Your task to perform on an android device: toggle pop-ups in chrome Image 0: 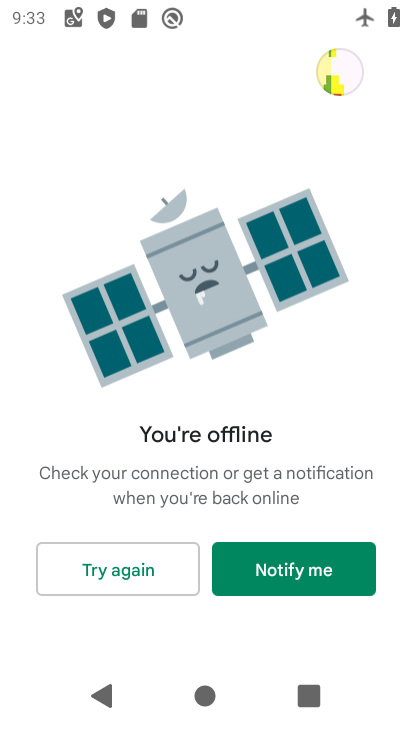
Step 0: press home button
Your task to perform on an android device: toggle pop-ups in chrome Image 1: 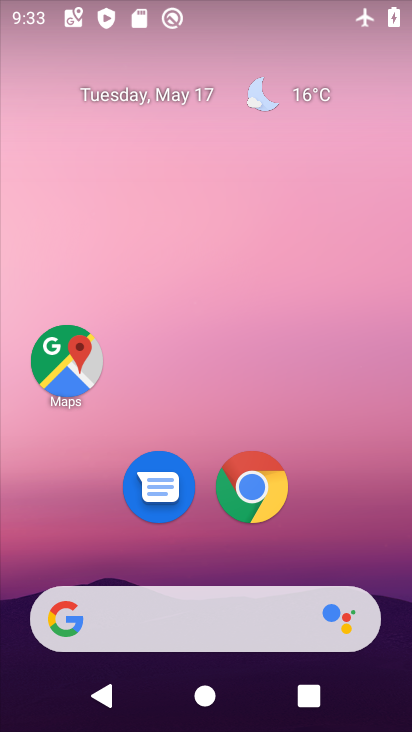
Step 1: click (258, 495)
Your task to perform on an android device: toggle pop-ups in chrome Image 2: 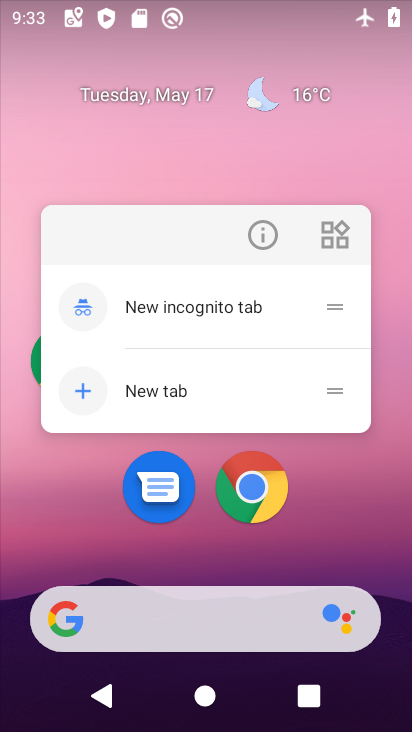
Step 2: click (256, 474)
Your task to perform on an android device: toggle pop-ups in chrome Image 3: 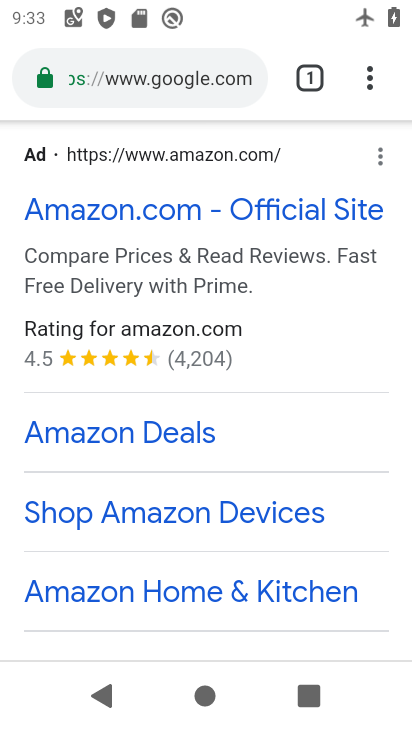
Step 3: click (371, 72)
Your task to perform on an android device: toggle pop-ups in chrome Image 4: 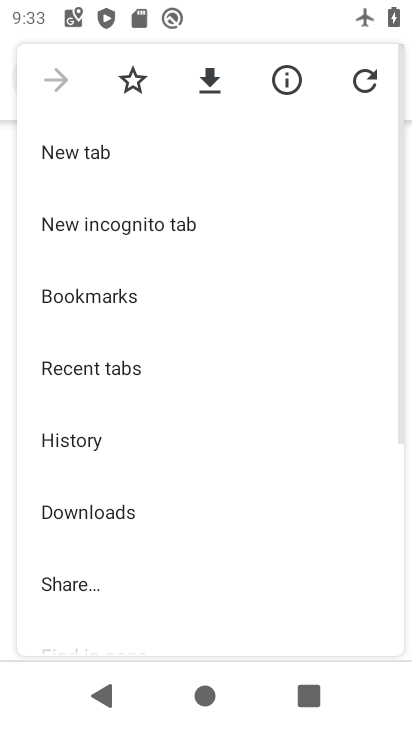
Step 4: drag from (127, 518) to (157, 222)
Your task to perform on an android device: toggle pop-ups in chrome Image 5: 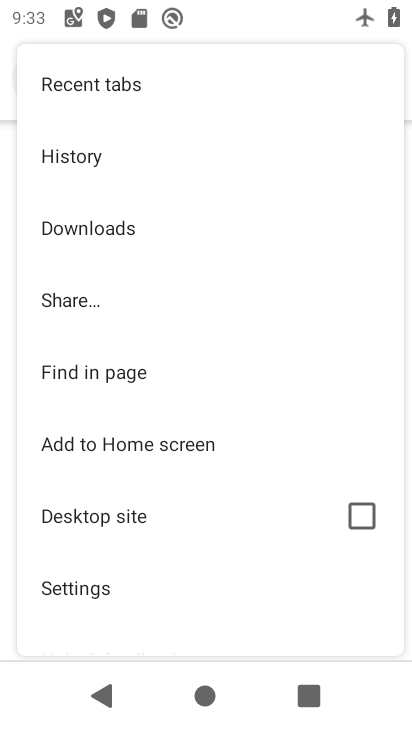
Step 5: click (94, 583)
Your task to perform on an android device: toggle pop-ups in chrome Image 6: 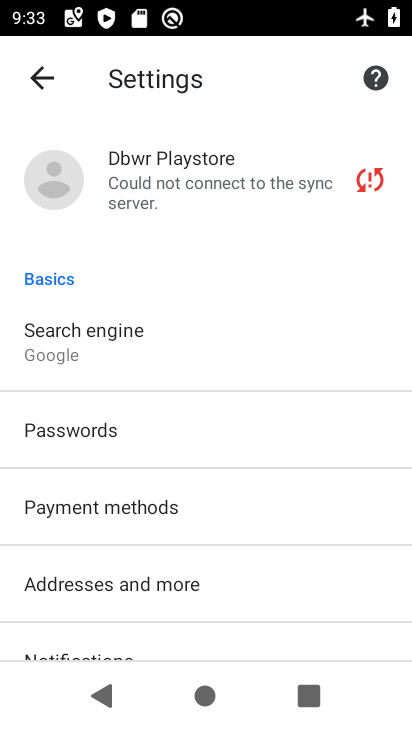
Step 6: drag from (168, 529) to (207, 236)
Your task to perform on an android device: toggle pop-ups in chrome Image 7: 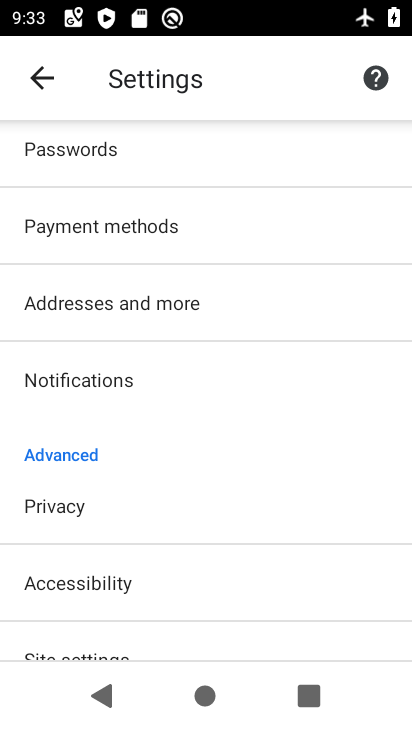
Step 7: drag from (182, 484) to (202, 294)
Your task to perform on an android device: toggle pop-ups in chrome Image 8: 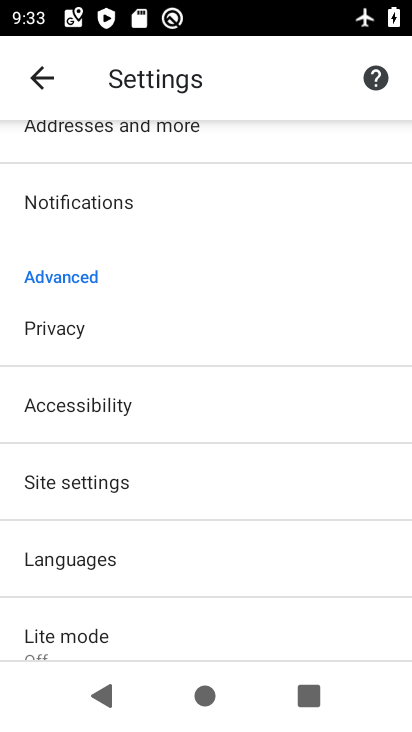
Step 8: click (97, 482)
Your task to perform on an android device: toggle pop-ups in chrome Image 9: 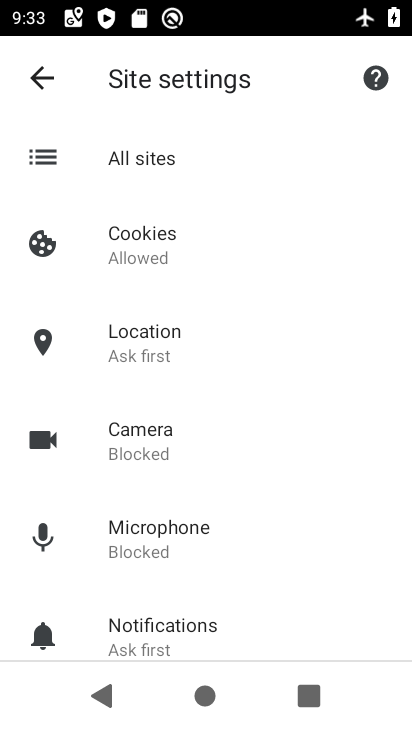
Step 9: drag from (147, 494) to (192, 198)
Your task to perform on an android device: toggle pop-ups in chrome Image 10: 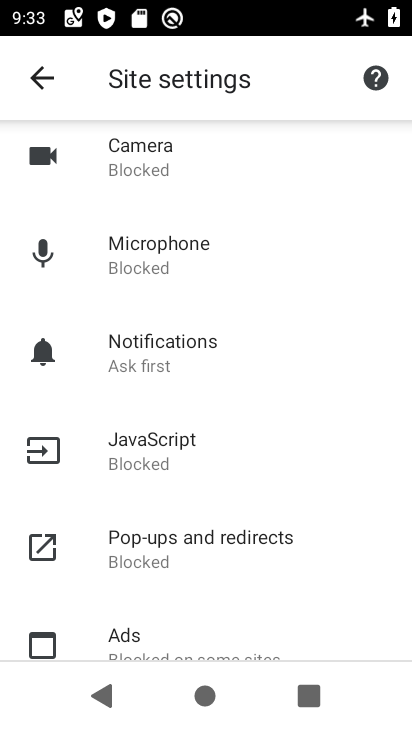
Step 10: click (169, 557)
Your task to perform on an android device: toggle pop-ups in chrome Image 11: 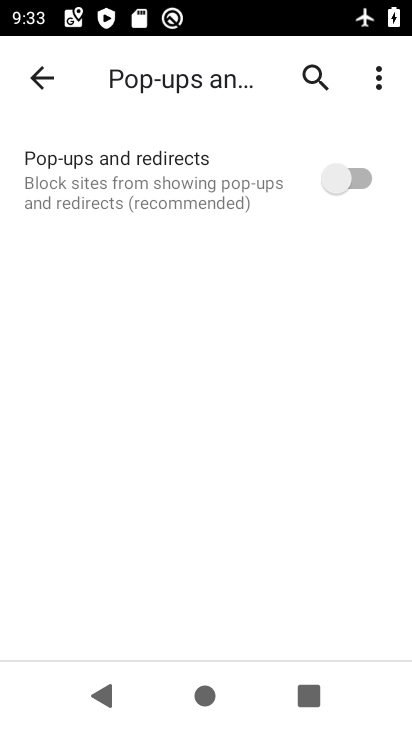
Step 11: click (371, 177)
Your task to perform on an android device: toggle pop-ups in chrome Image 12: 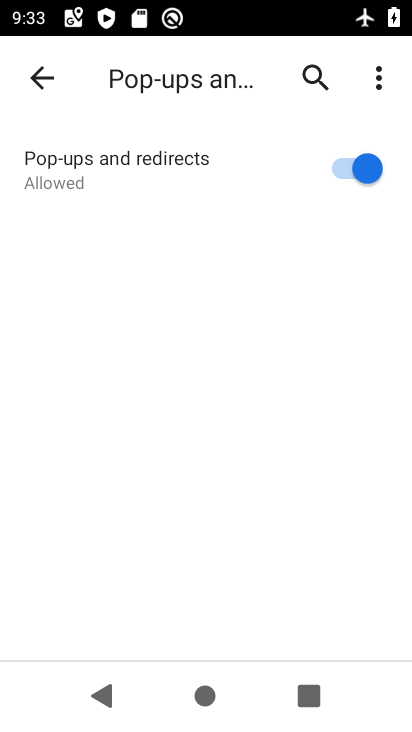
Step 12: task complete